Your task to perform on an android device: make emails show in primary in the gmail app Image 0: 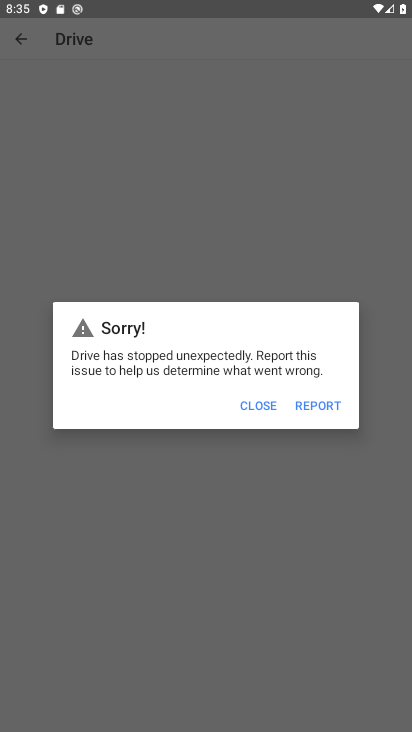
Step 0: press home button
Your task to perform on an android device: make emails show in primary in the gmail app Image 1: 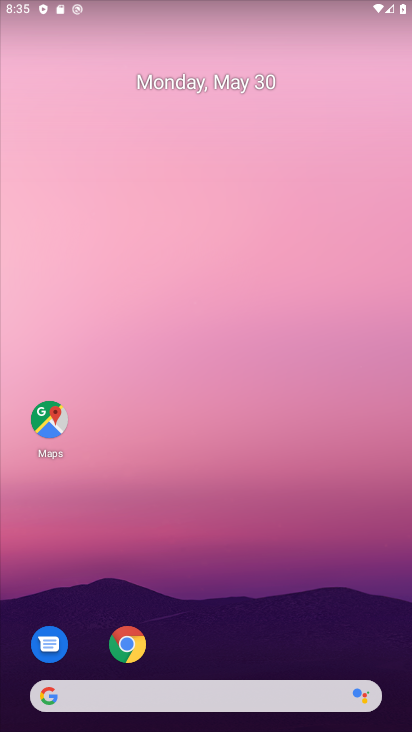
Step 1: drag from (240, 644) to (302, 31)
Your task to perform on an android device: make emails show in primary in the gmail app Image 2: 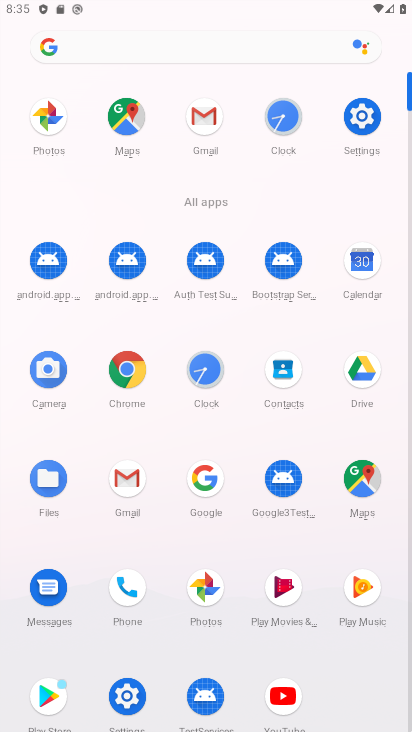
Step 2: click (200, 106)
Your task to perform on an android device: make emails show in primary in the gmail app Image 3: 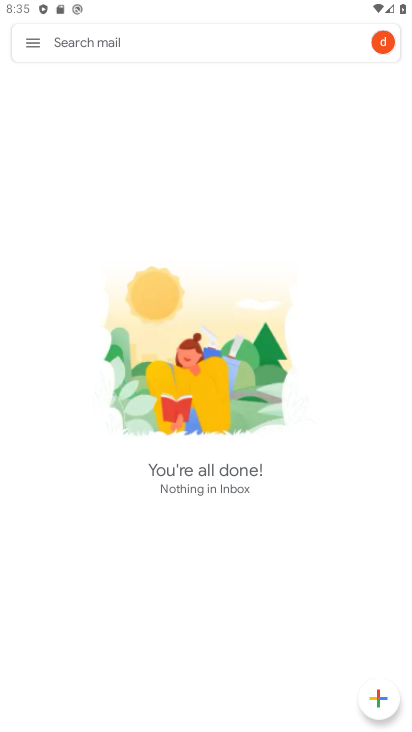
Step 3: click (31, 38)
Your task to perform on an android device: make emails show in primary in the gmail app Image 4: 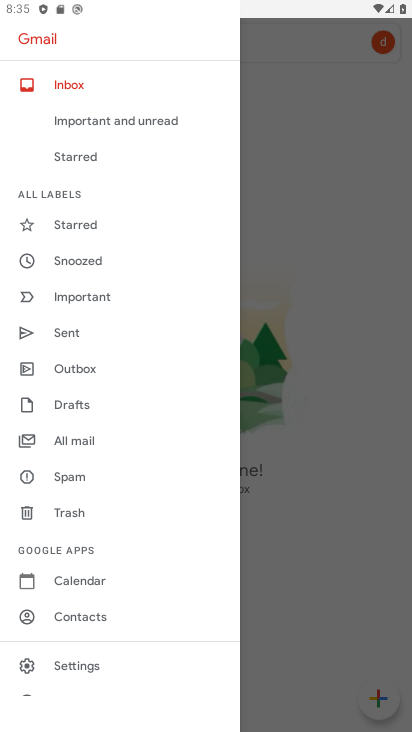
Step 4: click (89, 657)
Your task to perform on an android device: make emails show in primary in the gmail app Image 5: 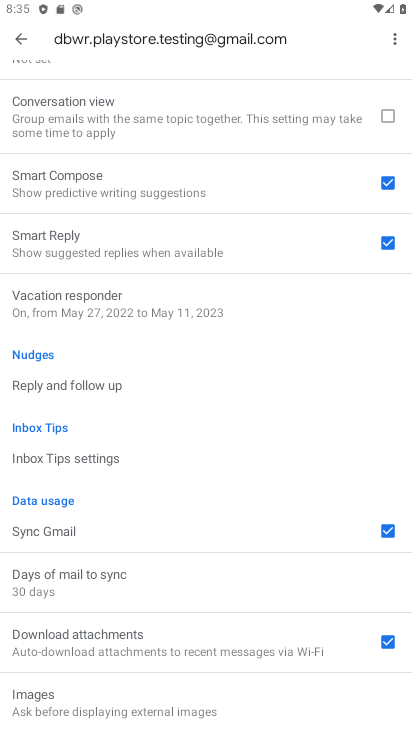
Step 5: task complete